Your task to perform on an android device: Open internet settings Image 0: 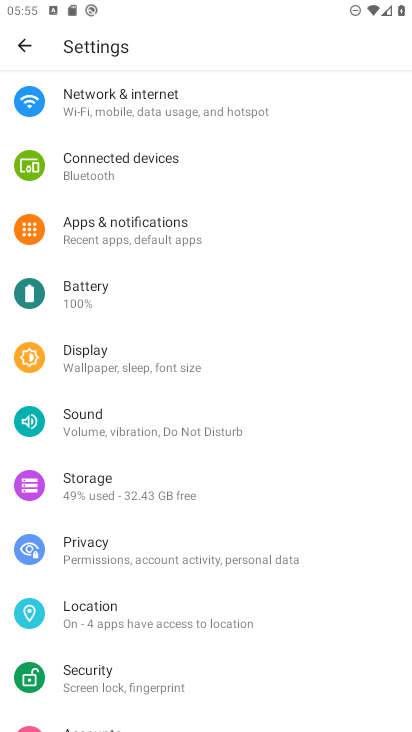
Step 0: press home button
Your task to perform on an android device: Open internet settings Image 1: 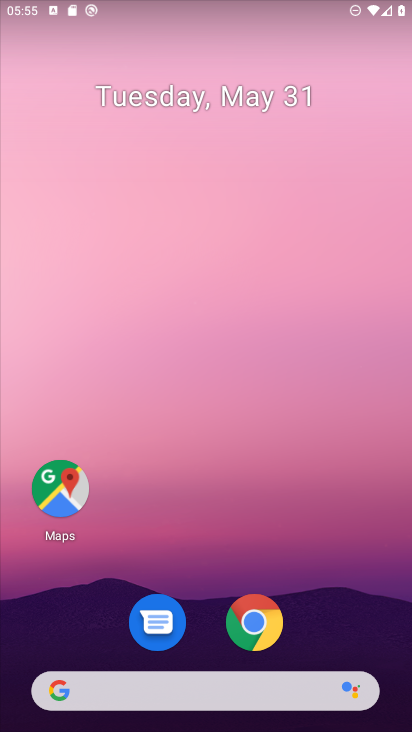
Step 1: drag from (309, 573) to (320, 72)
Your task to perform on an android device: Open internet settings Image 2: 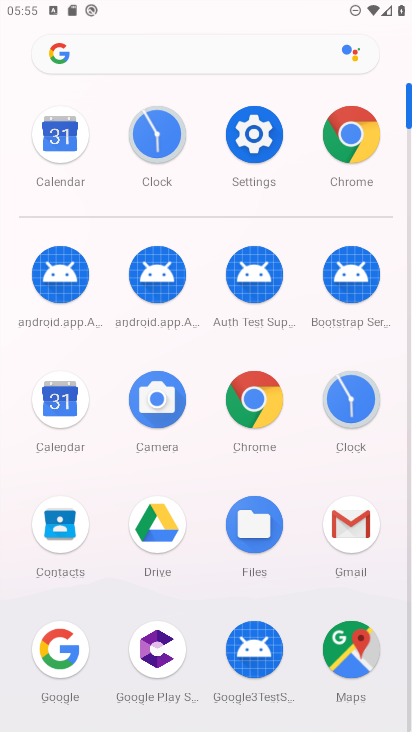
Step 2: click (244, 133)
Your task to perform on an android device: Open internet settings Image 3: 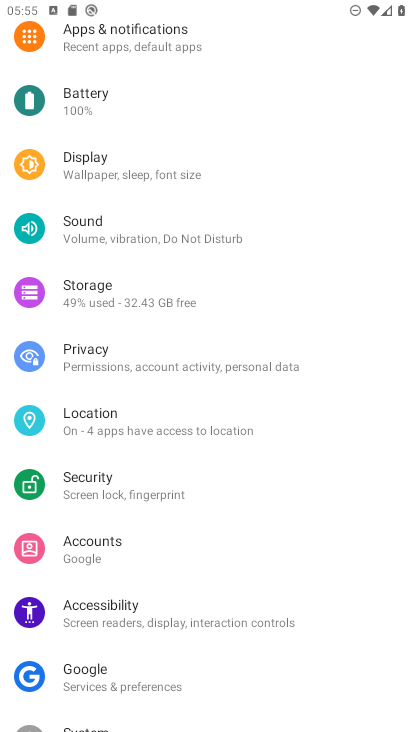
Step 3: drag from (219, 108) to (343, 717)
Your task to perform on an android device: Open internet settings Image 4: 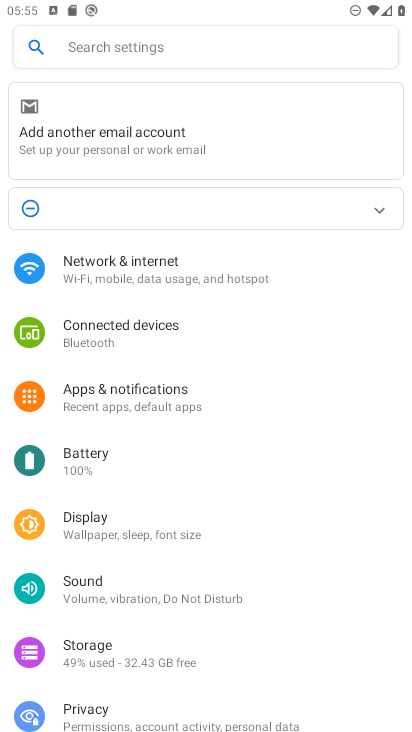
Step 4: click (185, 257)
Your task to perform on an android device: Open internet settings Image 5: 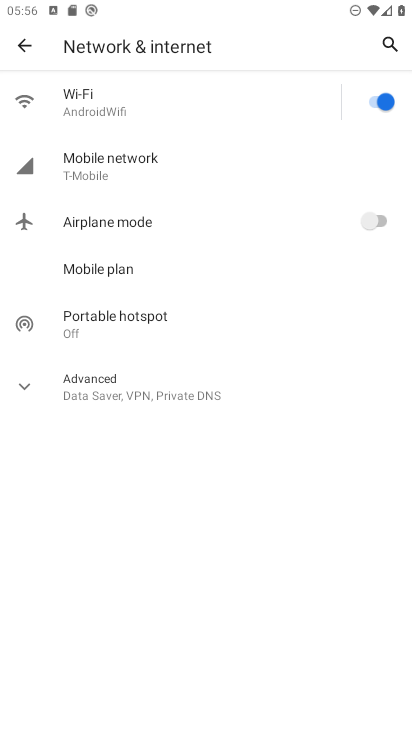
Step 5: task complete